Your task to perform on an android device: Go to Google maps Image 0: 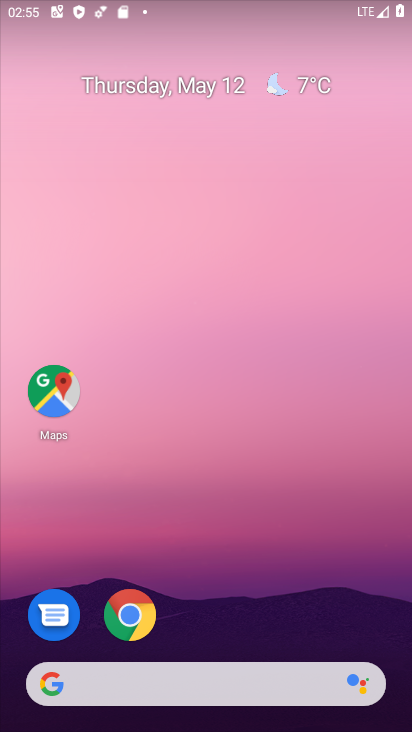
Step 0: click (38, 381)
Your task to perform on an android device: Go to Google maps Image 1: 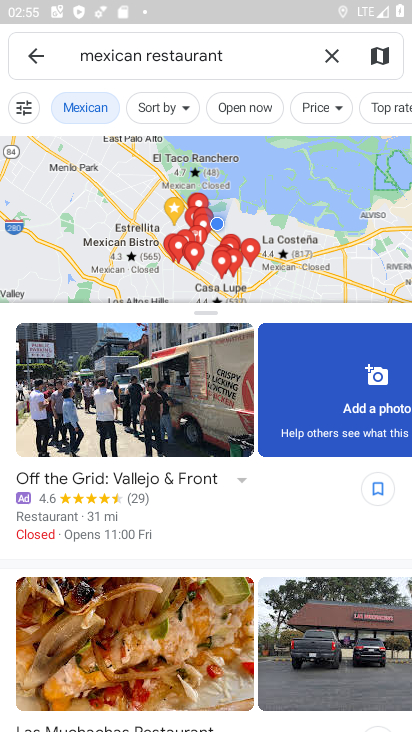
Step 1: task complete